Your task to perform on an android device: View the shopping cart on costco. Add "apple airpods" to the cart on costco, then select checkout. Image 0: 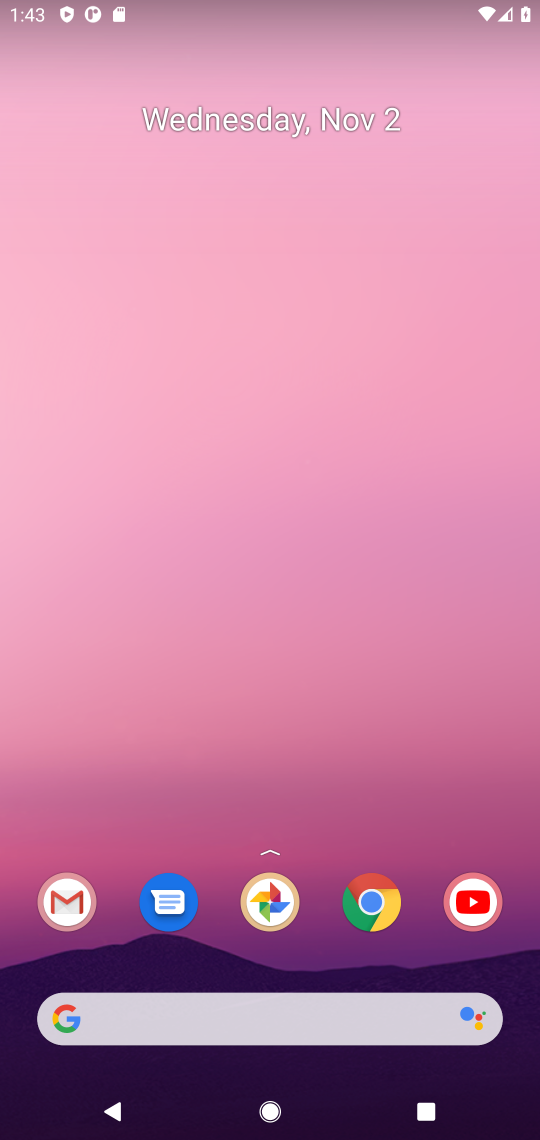
Step 0: click (299, 652)
Your task to perform on an android device: View the shopping cart on costco. Add "apple airpods" to the cart on costco, then select checkout. Image 1: 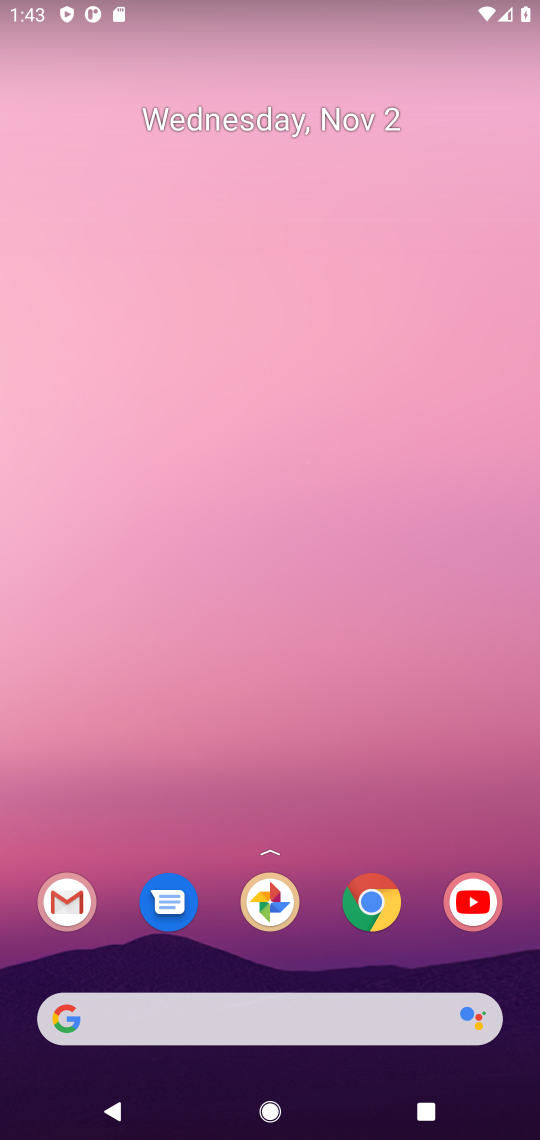
Step 1: click (263, 1014)
Your task to perform on an android device: View the shopping cart on costco. Add "apple airpods" to the cart on costco, then select checkout. Image 2: 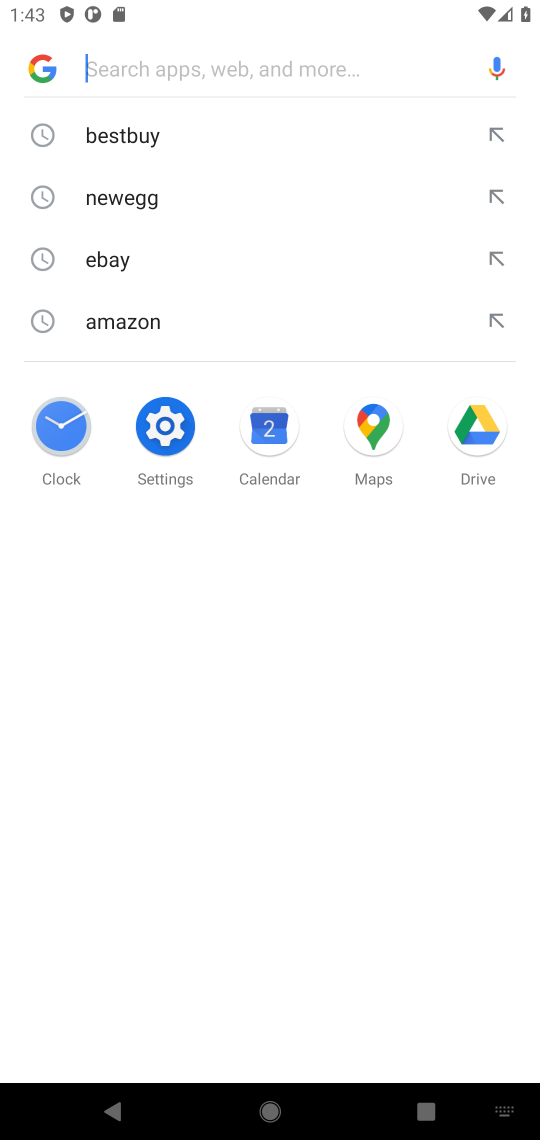
Step 2: type "costco"
Your task to perform on an android device: View the shopping cart on costco. Add "apple airpods" to the cart on costco, then select checkout. Image 3: 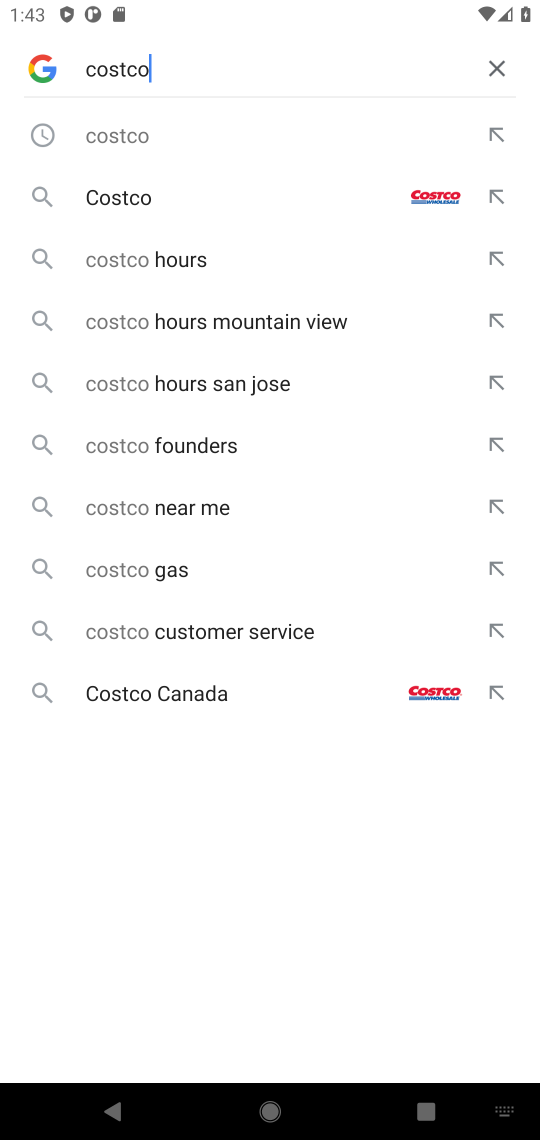
Step 3: click (145, 202)
Your task to perform on an android device: View the shopping cart on costco. Add "apple airpods" to the cart on costco, then select checkout. Image 4: 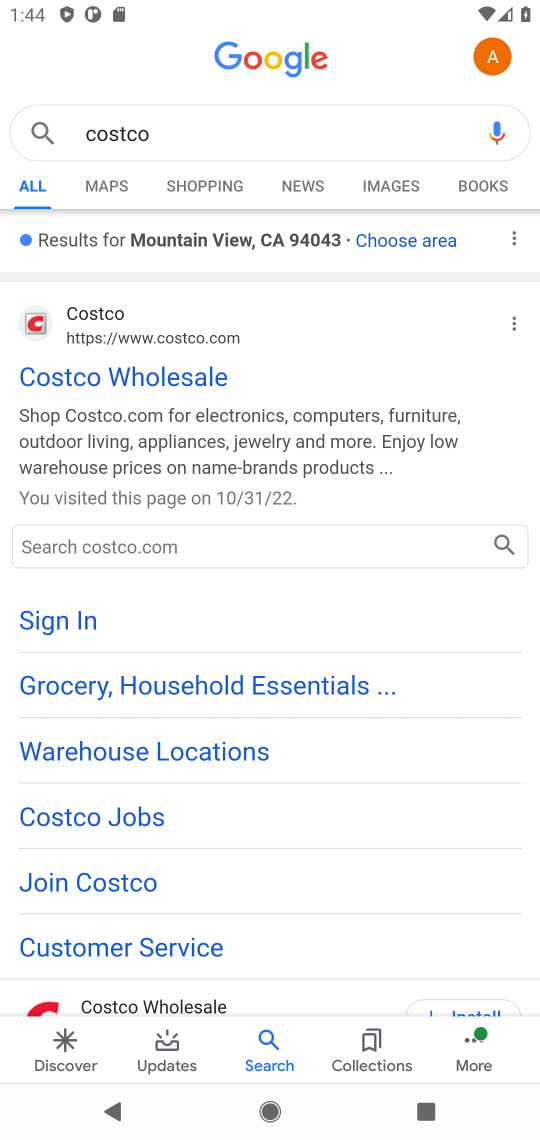
Step 4: click (104, 383)
Your task to perform on an android device: View the shopping cart on costco. Add "apple airpods" to the cart on costco, then select checkout. Image 5: 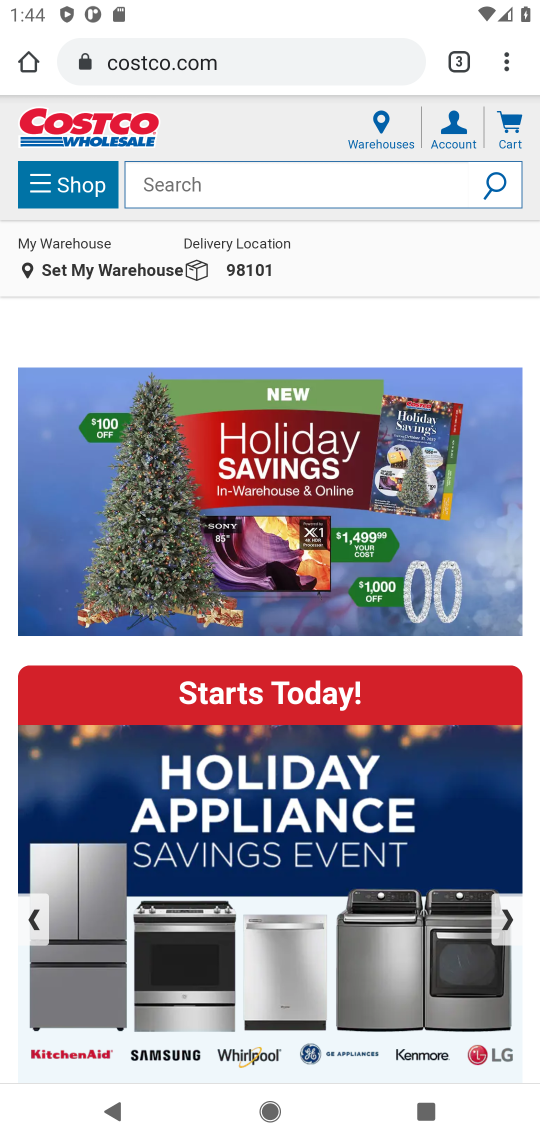
Step 5: click (237, 178)
Your task to perform on an android device: View the shopping cart on costco. Add "apple airpods" to the cart on costco, then select checkout. Image 6: 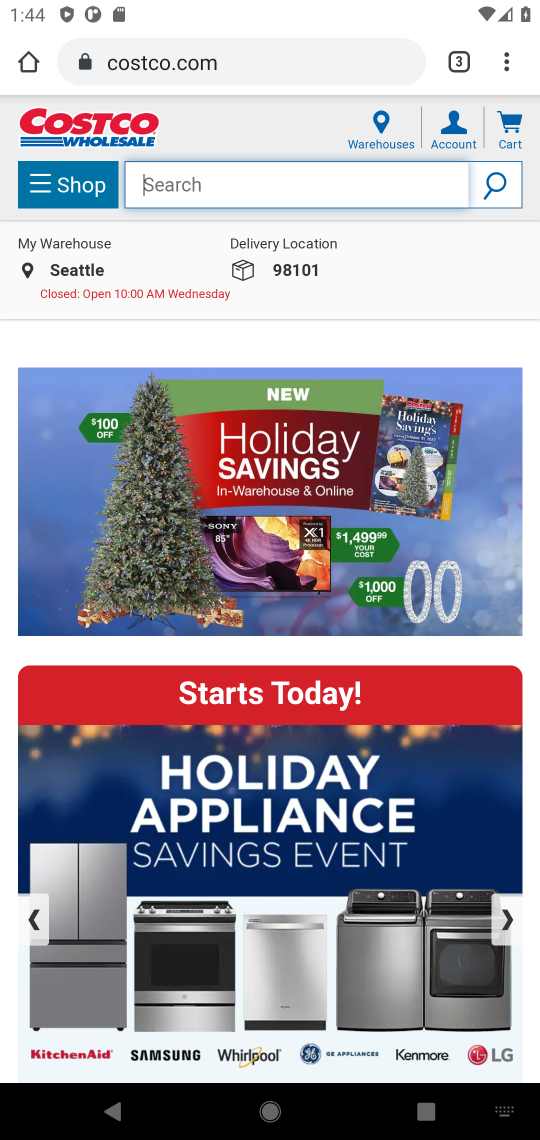
Step 6: type "apple airpods"
Your task to perform on an android device: View the shopping cart on costco. Add "apple airpods" to the cart on costco, then select checkout. Image 7: 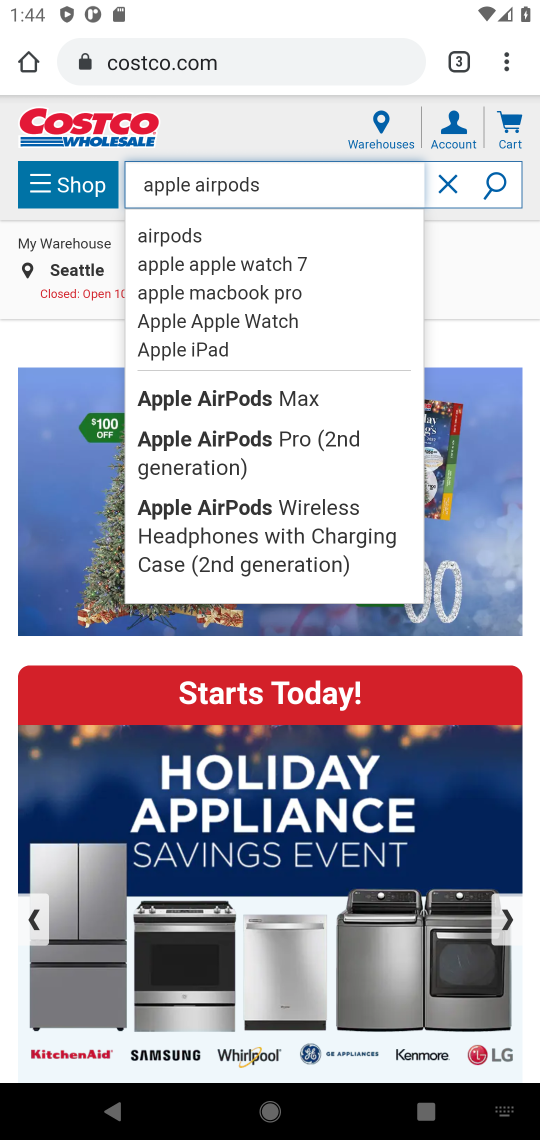
Step 7: click (499, 172)
Your task to perform on an android device: View the shopping cart on costco. Add "apple airpods" to the cart on costco, then select checkout. Image 8: 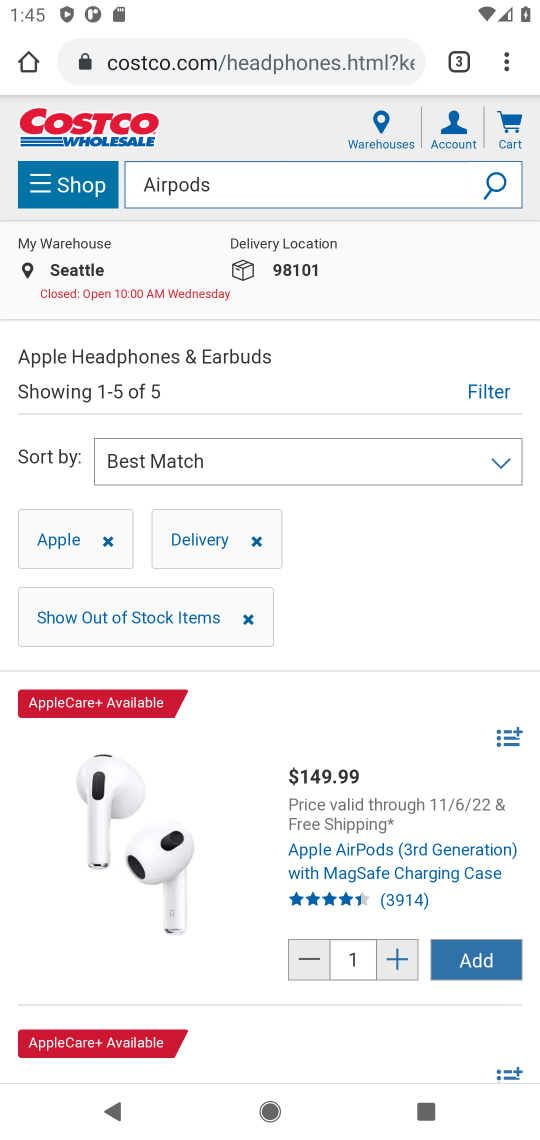
Step 8: click (453, 965)
Your task to perform on an android device: View the shopping cart on costco. Add "apple airpods" to the cart on costco, then select checkout. Image 9: 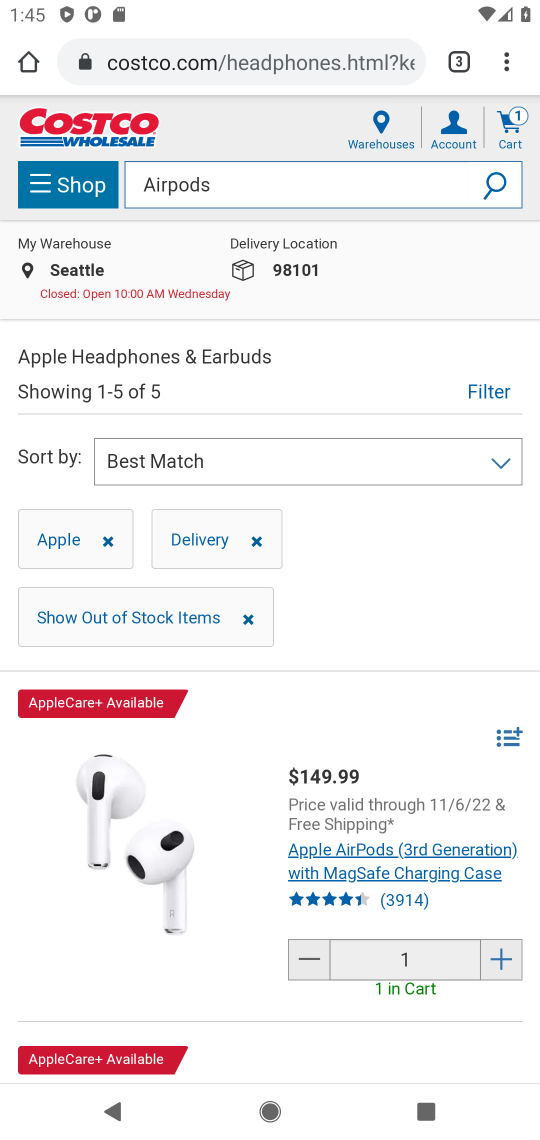
Step 9: click (509, 124)
Your task to perform on an android device: View the shopping cart on costco. Add "apple airpods" to the cart on costco, then select checkout. Image 10: 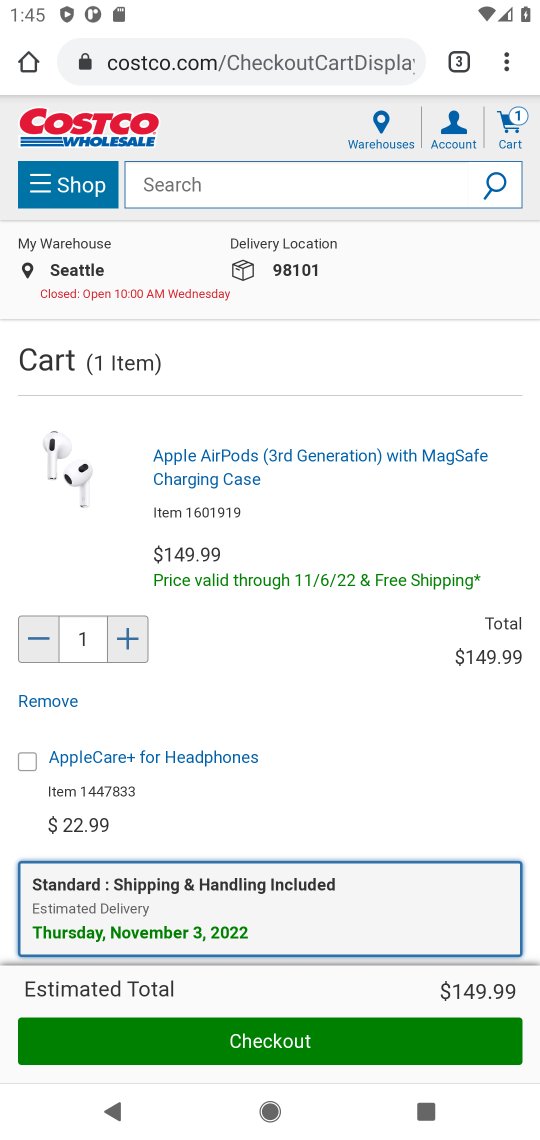
Step 10: click (263, 1046)
Your task to perform on an android device: View the shopping cart on costco. Add "apple airpods" to the cart on costco, then select checkout. Image 11: 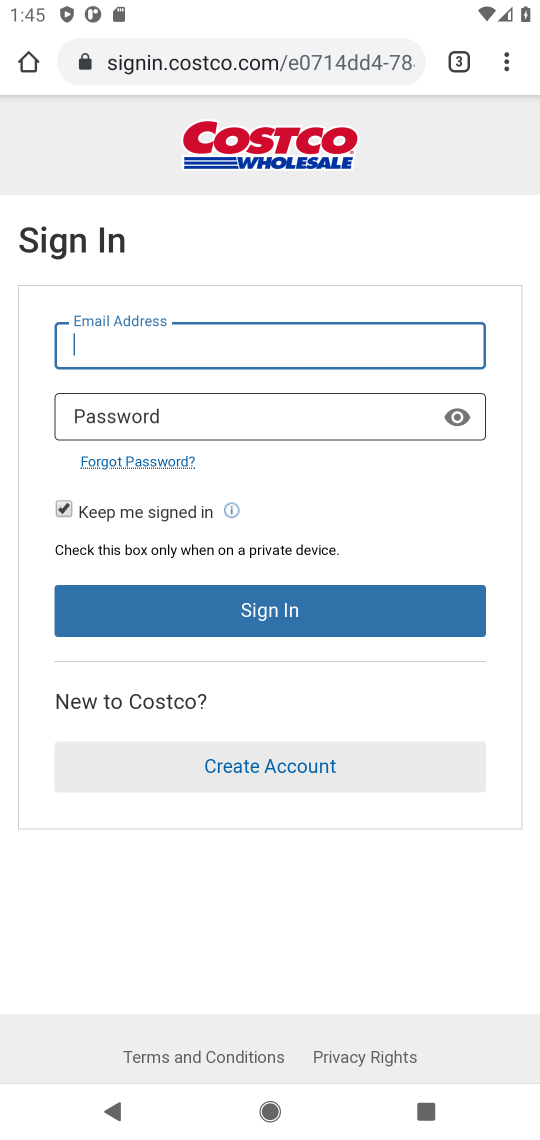
Step 11: task complete